Your task to perform on an android device: Open settings Image 0: 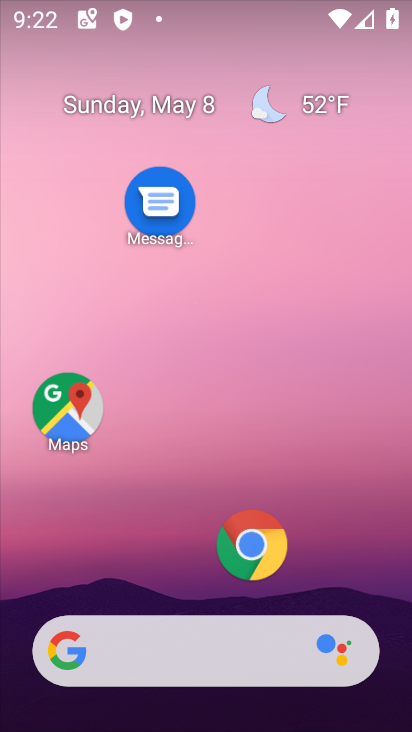
Step 0: drag from (200, 600) to (367, 16)
Your task to perform on an android device: Open settings Image 1: 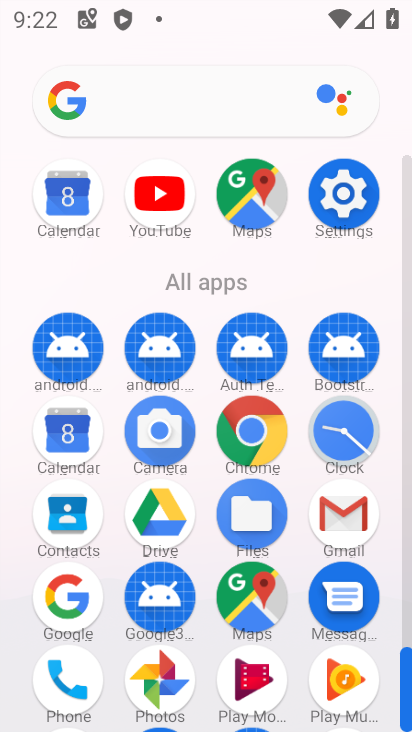
Step 1: click (347, 174)
Your task to perform on an android device: Open settings Image 2: 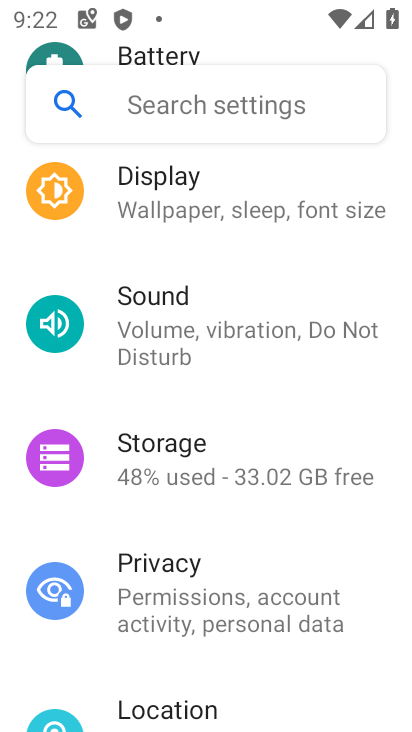
Step 2: task complete